Your task to perform on an android device: Open Google Chrome and open the bookmarks view Image 0: 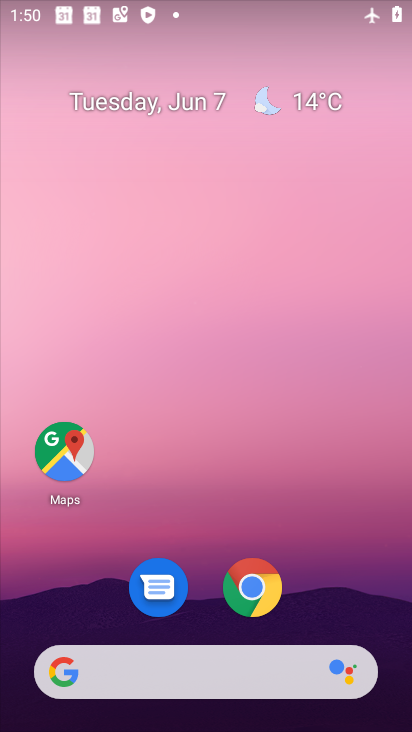
Step 0: drag from (206, 639) to (205, 192)
Your task to perform on an android device: Open Google Chrome and open the bookmarks view Image 1: 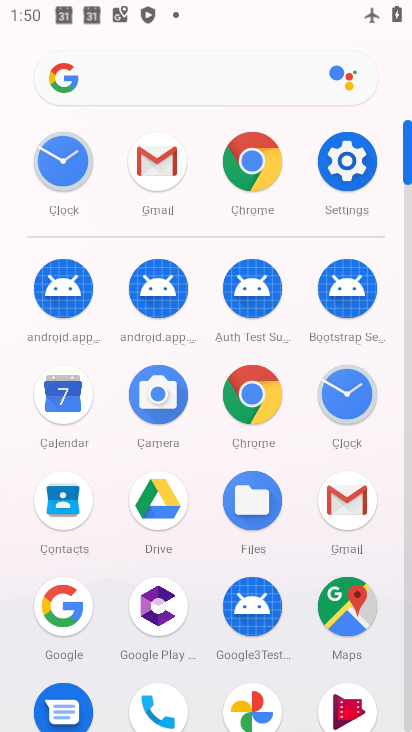
Step 1: click (257, 421)
Your task to perform on an android device: Open Google Chrome and open the bookmarks view Image 2: 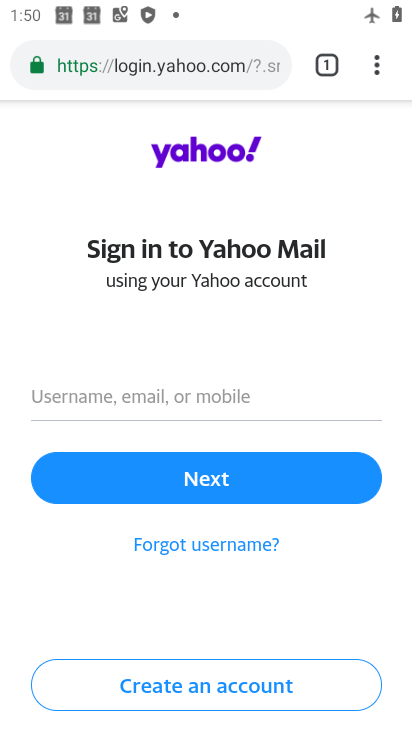
Step 2: click (372, 64)
Your task to perform on an android device: Open Google Chrome and open the bookmarks view Image 3: 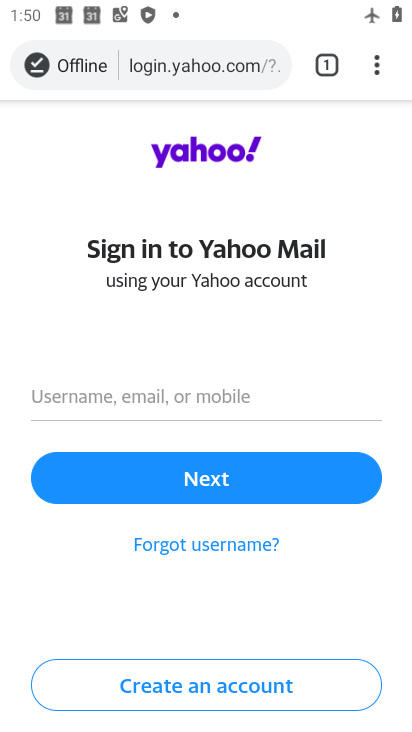
Step 3: click (381, 71)
Your task to perform on an android device: Open Google Chrome and open the bookmarks view Image 4: 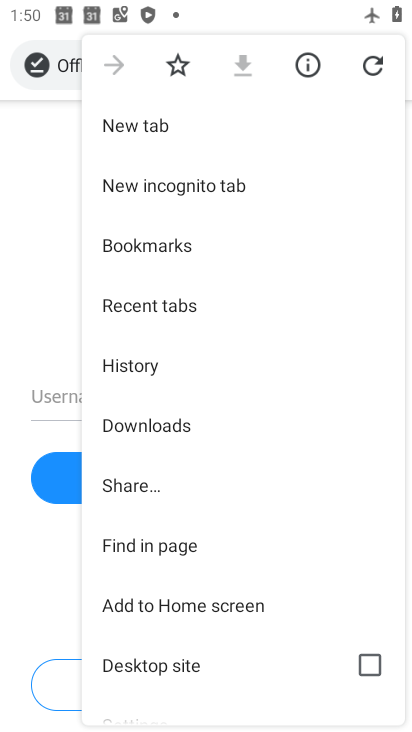
Step 4: drag from (190, 564) to (236, 335)
Your task to perform on an android device: Open Google Chrome and open the bookmarks view Image 5: 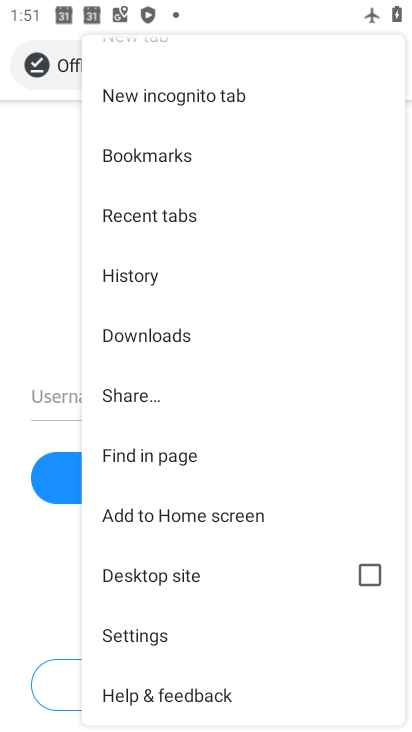
Step 5: click (159, 157)
Your task to perform on an android device: Open Google Chrome and open the bookmarks view Image 6: 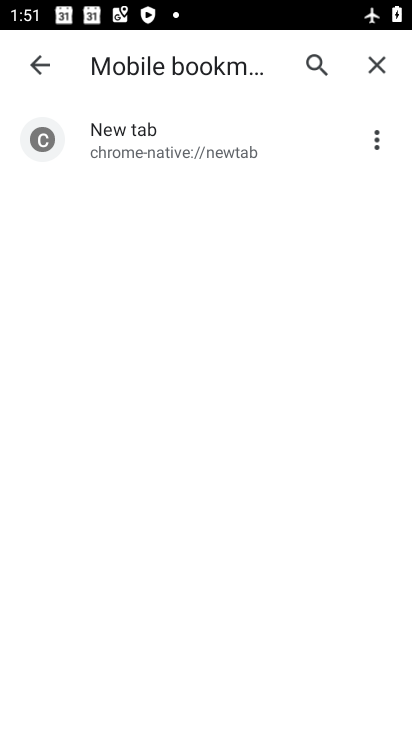
Step 6: click (163, 157)
Your task to perform on an android device: Open Google Chrome and open the bookmarks view Image 7: 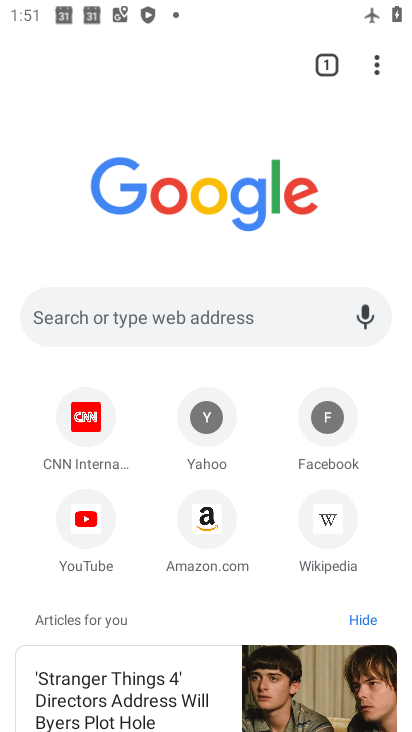
Step 7: click (181, 149)
Your task to perform on an android device: Open Google Chrome and open the bookmarks view Image 8: 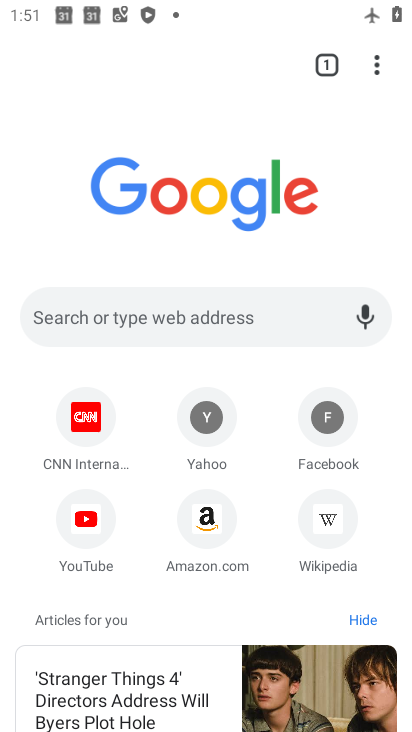
Step 8: task complete